Your task to perform on an android device: open app "PUBG MOBILE" Image 0: 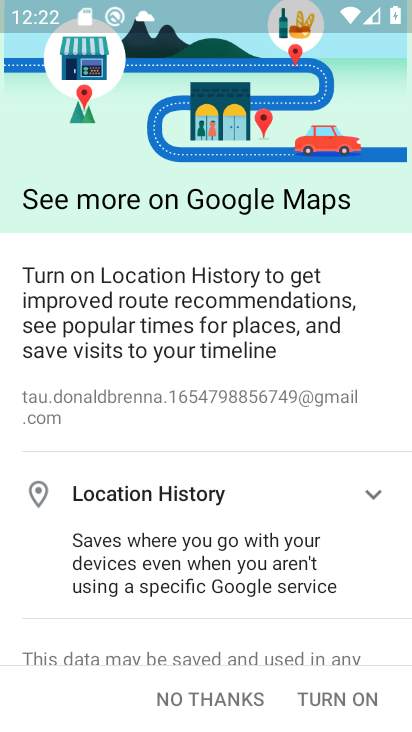
Step 0: press home button
Your task to perform on an android device: open app "PUBG MOBILE" Image 1: 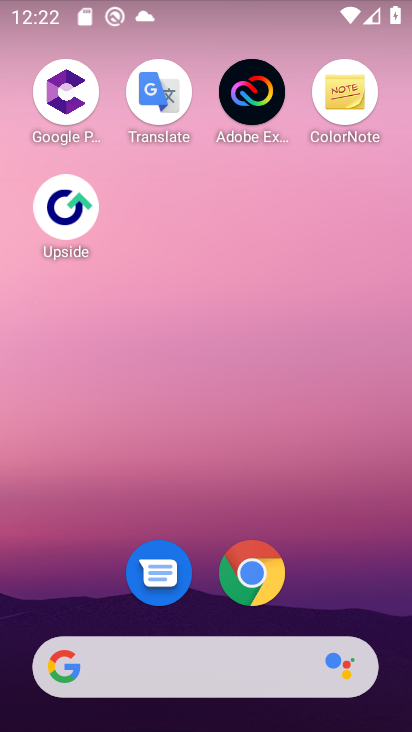
Step 1: press home button
Your task to perform on an android device: open app "PUBG MOBILE" Image 2: 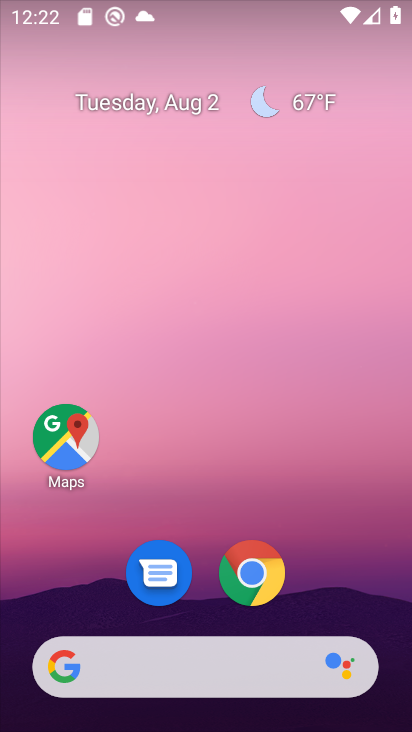
Step 2: drag from (212, 682) to (240, 52)
Your task to perform on an android device: open app "PUBG MOBILE" Image 3: 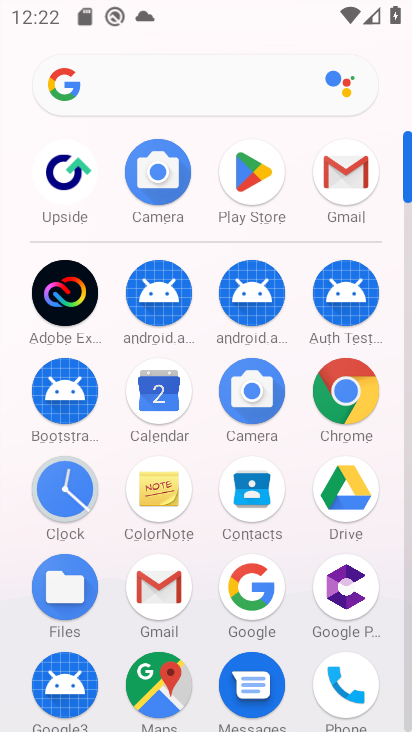
Step 3: click (245, 163)
Your task to perform on an android device: open app "PUBG MOBILE" Image 4: 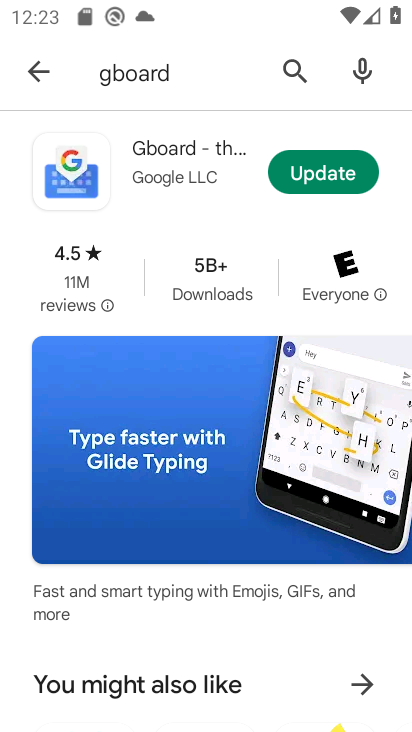
Step 4: click (285, 67)
Your task to perform on an android device: open app "PUBG MOBILE" Image 5: 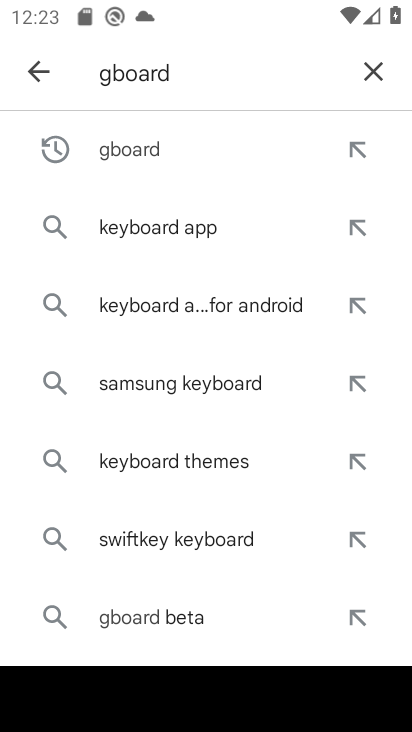
Step 5: click (378, 68)
Your task to perform on an android device: open app "PUBG MOBILE" Image 6: 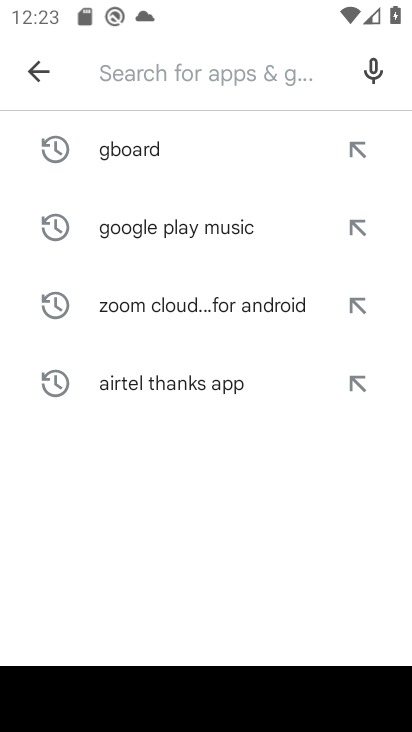
Step 6: type "pubg mobile"
Your task to perform on an android device: open app "PUBG MOBILE" Image 7: 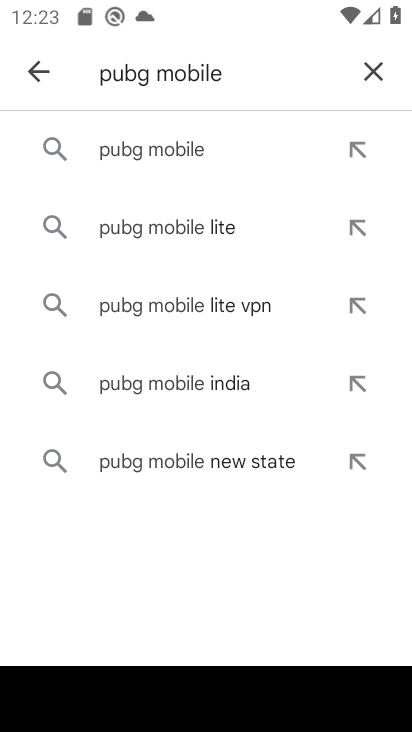
Step 7: click (178, 152)
Your task to perform on an android device: open app "PUBG MOBILE" Image 8: 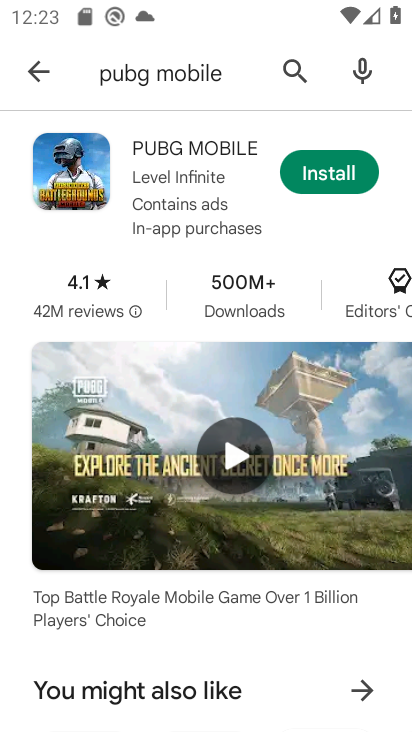
Step 8: task complete